Your task to perform on an android device: change the upload size in google photos Image 0: 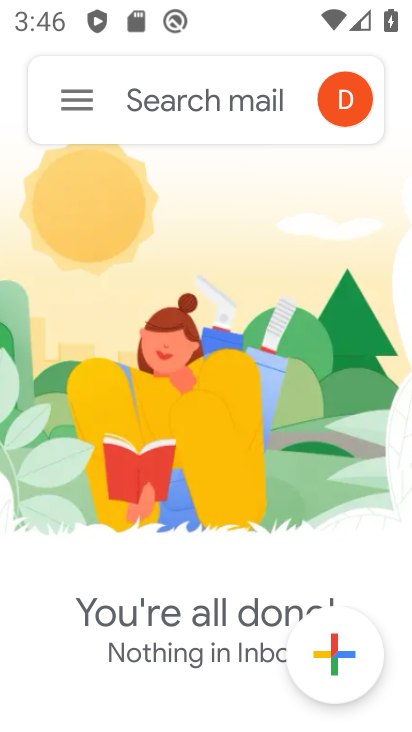
Step 0: press home button
Your task to perform on an android device: change the upload size in google photos Image 1: 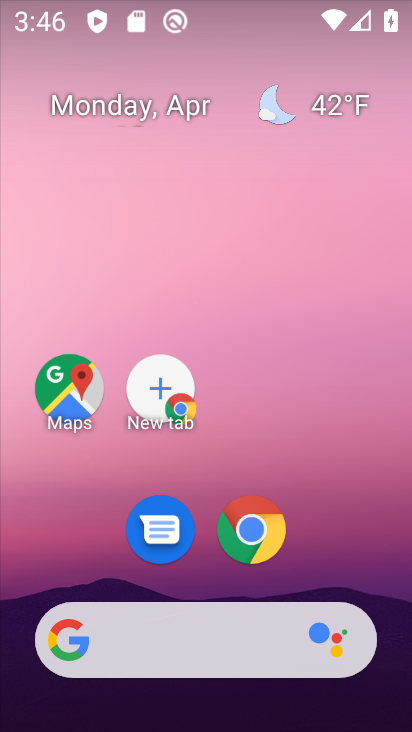
Step 1: drag from (129, 554) to (263, 14)
Your task to perform on an android device: change the upload size in google photos Image 2: 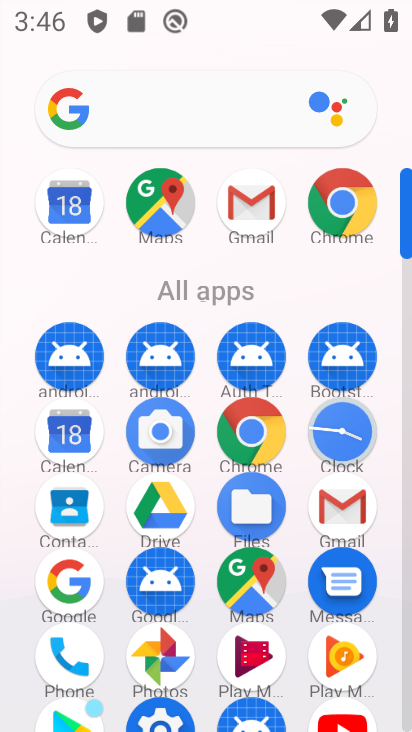
Step 2: click (145, 648)
Your task to perform on an android device: change the upload size in google photos Image 3: 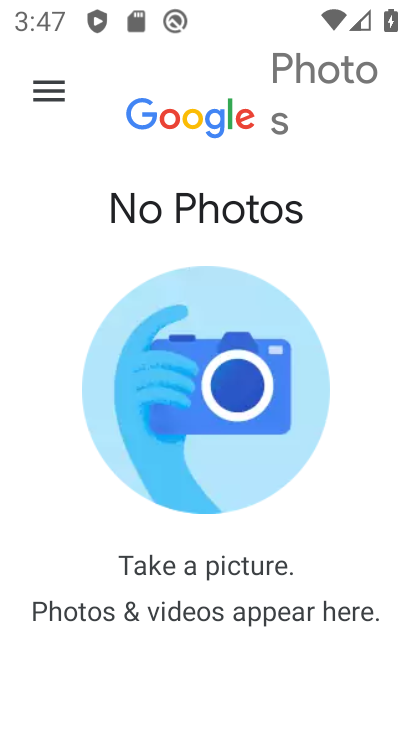
Step 3: click (45, 81)
Your task to perform on an android device: change the upload size in google photos Image 4: 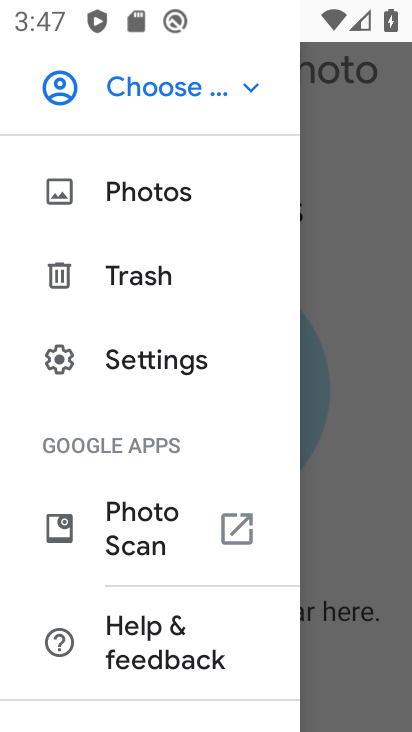
Step 4: click (117, 364)
Your task to perform on an android device: change the upload size in google photos Image 5: 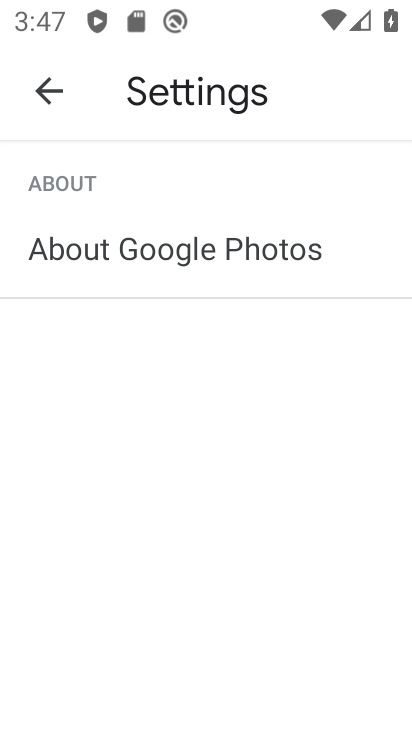
Step 5: click (48, 82)
Your task to perform on an android device: change the upload size in google photos Image 6: 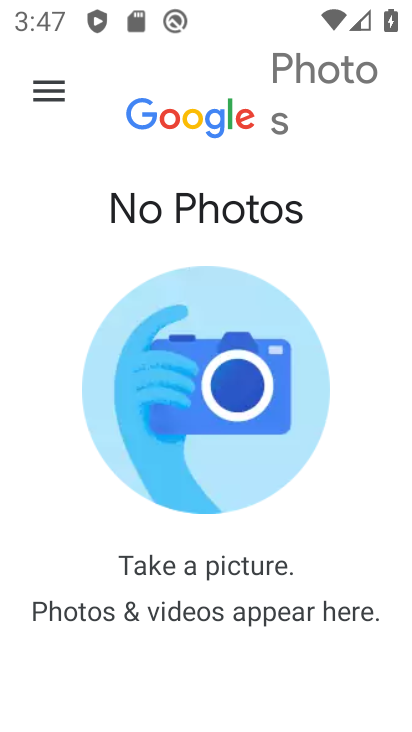
Step 6: click (38, 82)
Your task to perform on an android device: change the upload size in google photos Image 7: 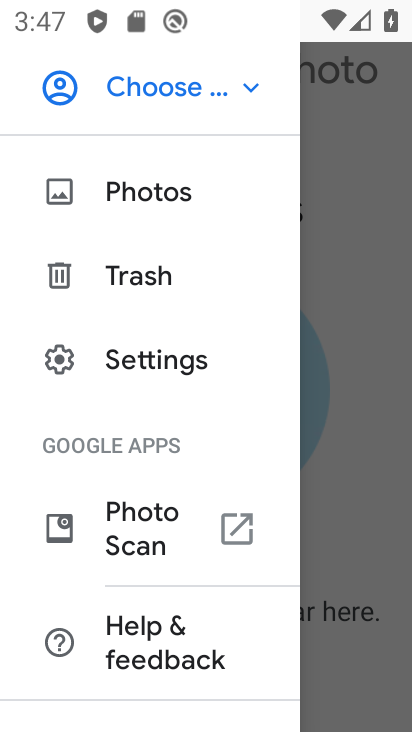
Step 7: drag from (148, 234) to (133, 714)
Your task to perform on an android device: change the upload size in google photos Image 8: 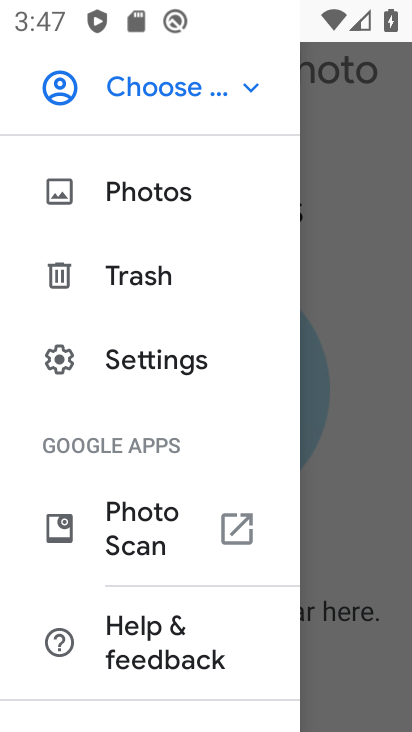
Step 8: click (243, 83)
Your task to perform on an android device: change the upload size in google photos Image 9: 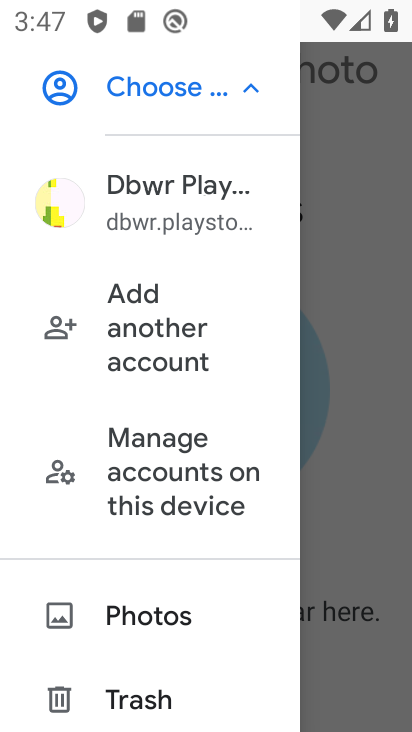
Step 9: click (152, 201)
Your task to perform on an android device: change the upload size in google photos Image 10: 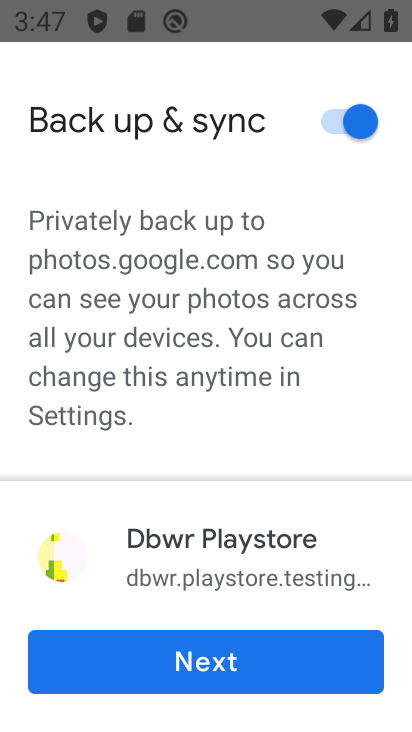
Step 10: click (206, 682)
Your task to perform on an android device: change the upload size in google photos Image 11: 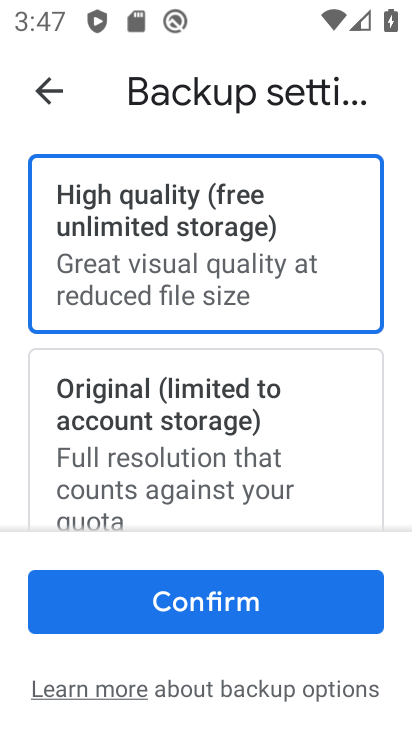
Step 11: drag from (173, 510) to (225, 327)
Your task to perform on an android device: change the upload size in google photos Image 12: 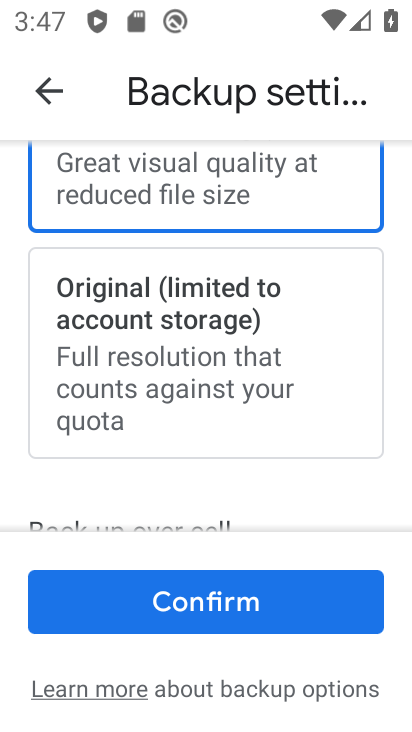
Step 12: click (171, 330)
Your task to perform on an android device: change the upload size in google photos Image 13: 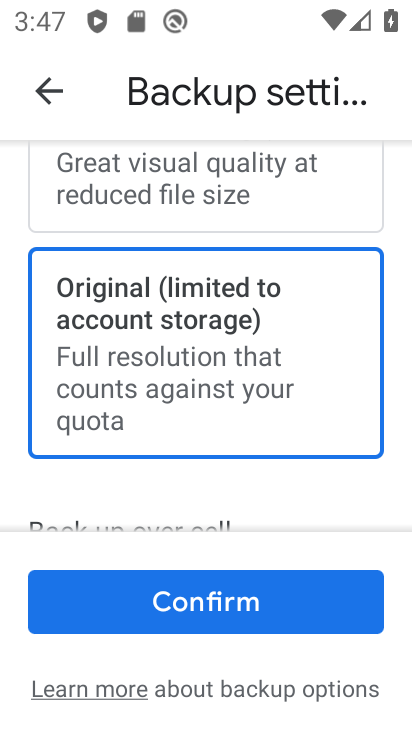
Step 13: click (205, 615)
Your task to perform on an android device: change the upload size in google photos Image 14: 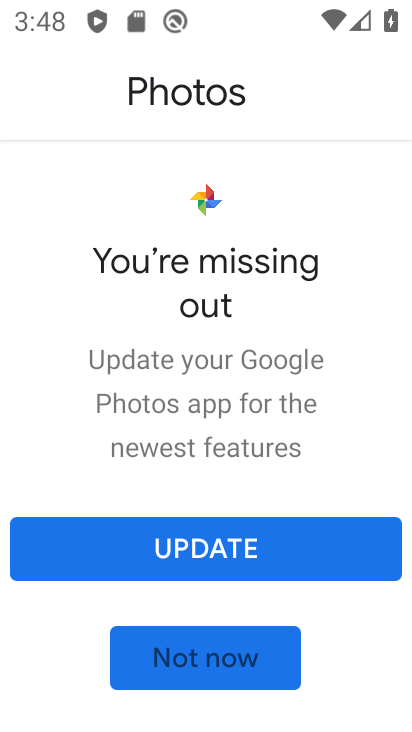
Step 14: task complete